Your task to perform on an android device: What's the weather today? Image 0: 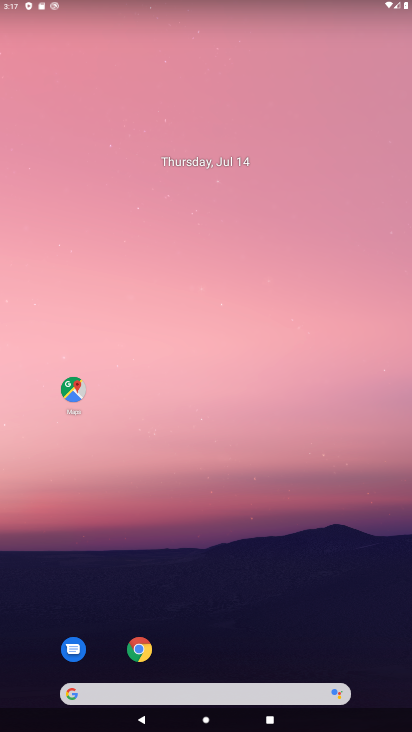
Step 0: drag from (200, 652) to (176, 112)
Your task to perform on an android device: What's the weather today? Image 1: 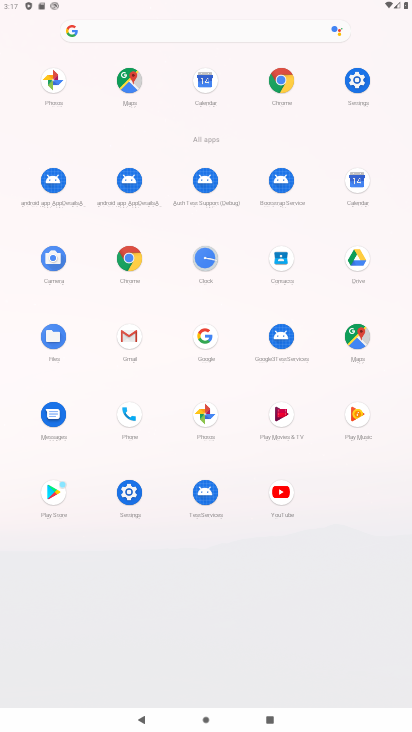
Step 1: click (205, 341)
Your task to perform on an android device: What's the weather today? Image 2: 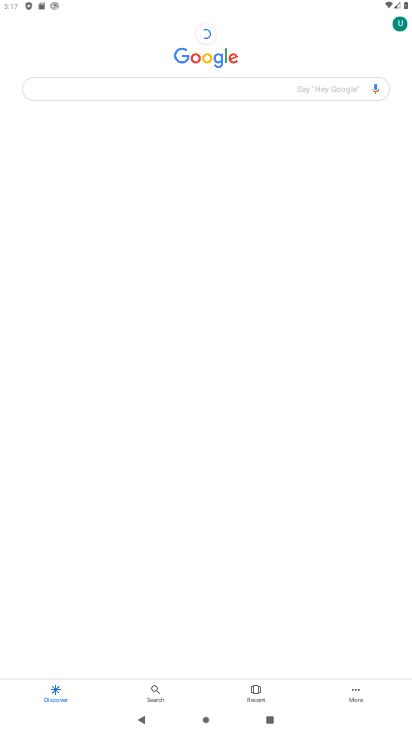
Step 2: click (142, 76)
Your task to perform on an android device: What's the weather today? Image 3: 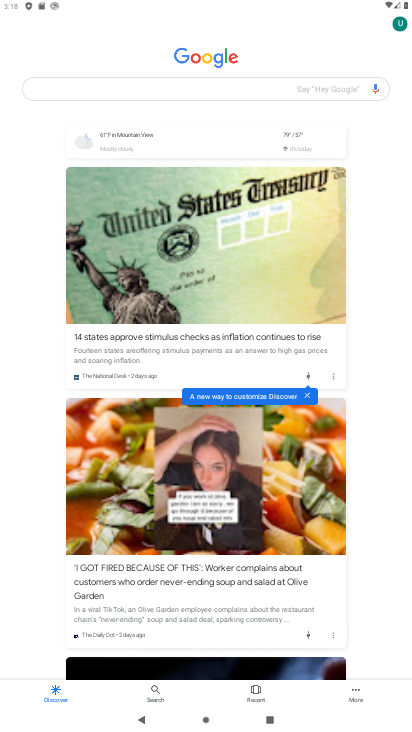
Step 3: click (150, 90)
Your task to perform on an android device: What's the weather today? Image 4: 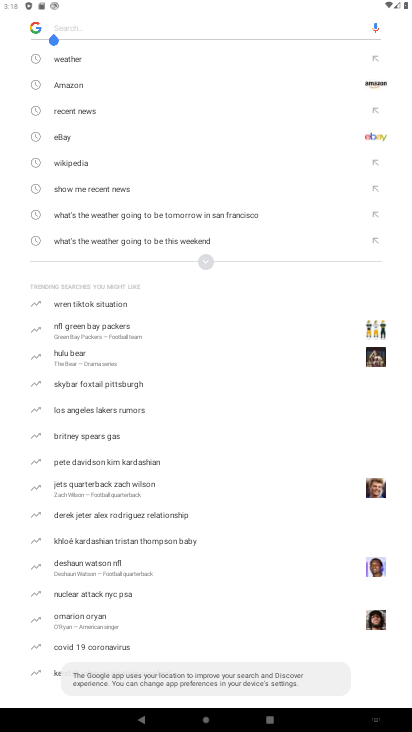
Step 4: click (45, 53)
Your task to perform on an android device: What's the weather today? Image 5: 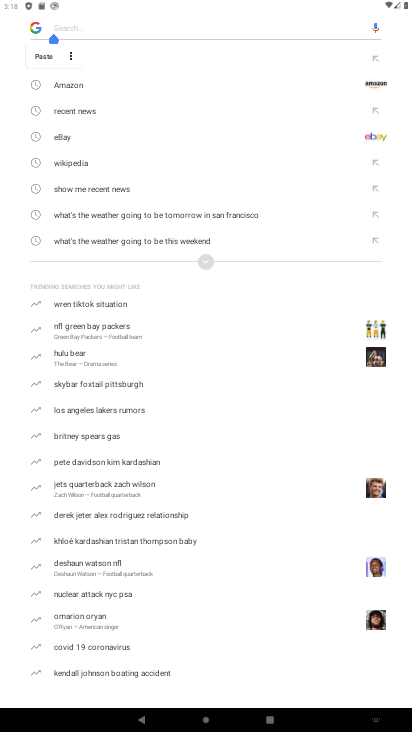
Step 5: click (106, 69)
Your task to perform on an android device: What's the weather today? Image 6: 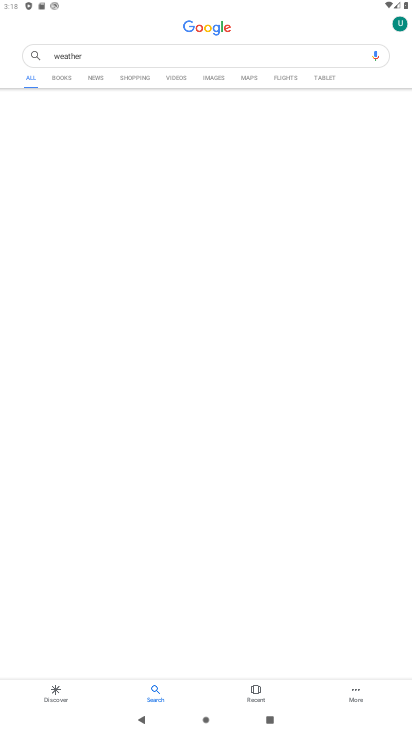
Step 6: task complete